Your task to perform on an android device: Show me recent news Image 0: 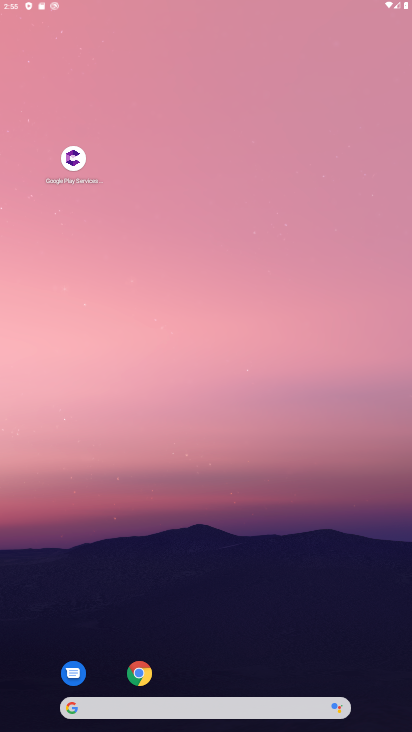
Step 0: press home button
Your task to perform on an android device: Show me recent news Image 1: 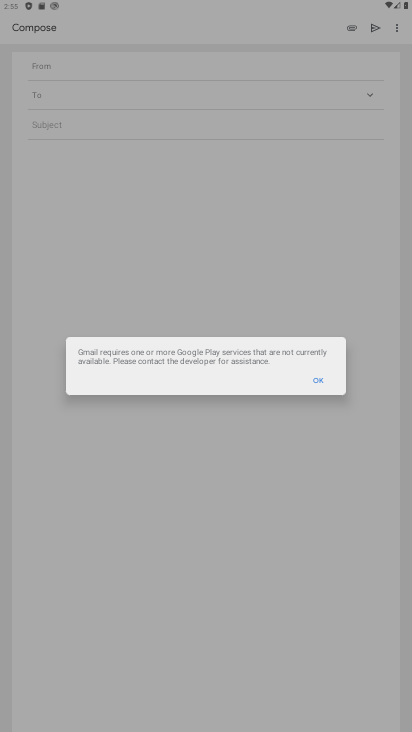
Step 1: click (102, 88)
Your task to perform on an android device: Show me recent news Image 2: 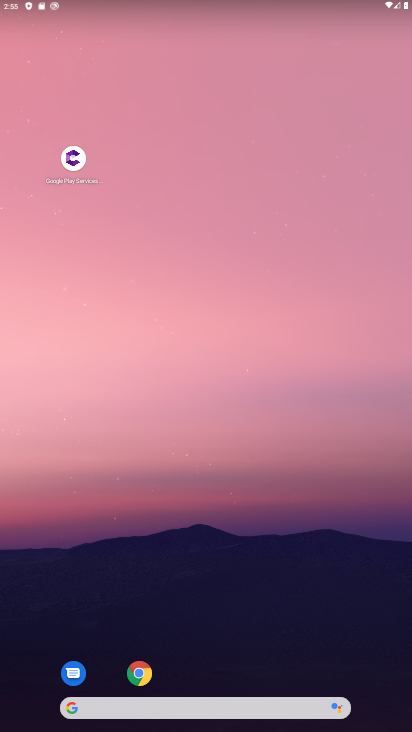
Step 2: click (142, 672)
Your task to perform on an android device: Show me recent news Image 3: 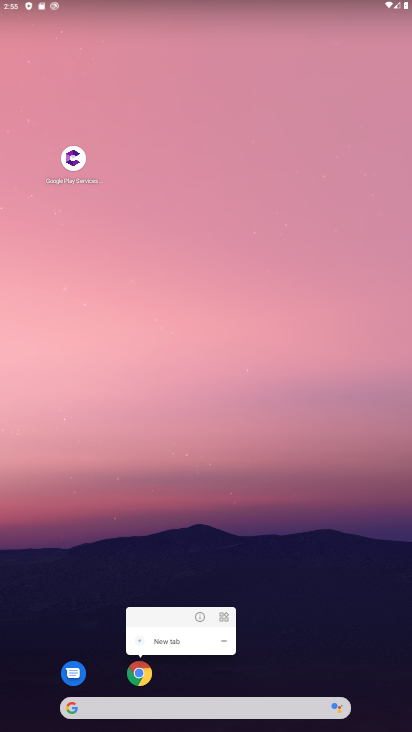
Step 3: click (144, 667)
Your task to perform on an android device: Show me recent news Image 4: 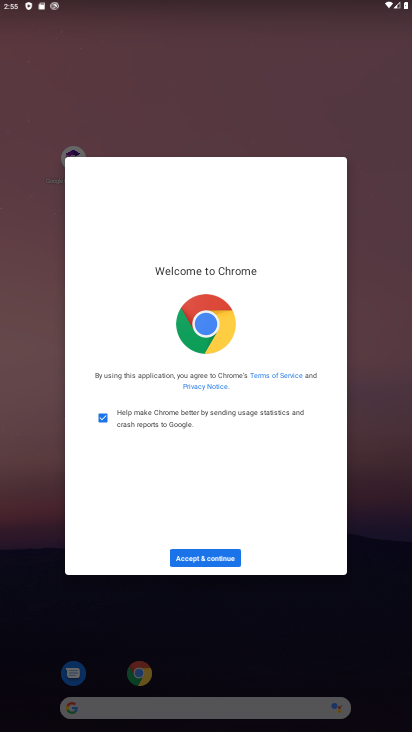
Step 4: click (205, 550)
Your task to perform on an android device: Show me recent news Image 5: 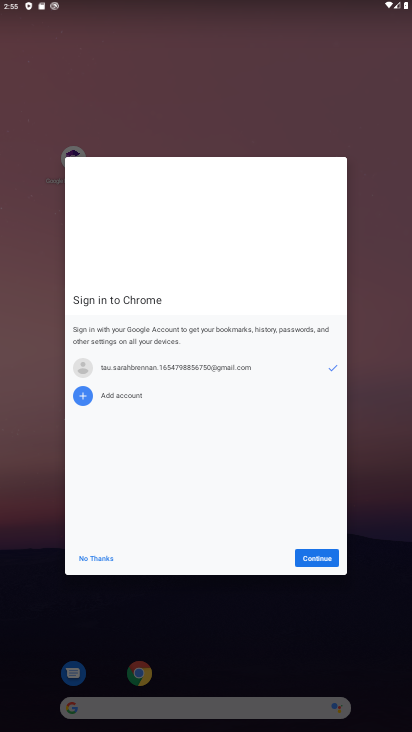
Step 5: click (305, 549)
Your task to perform on an android device: Show me recent news Image 6: 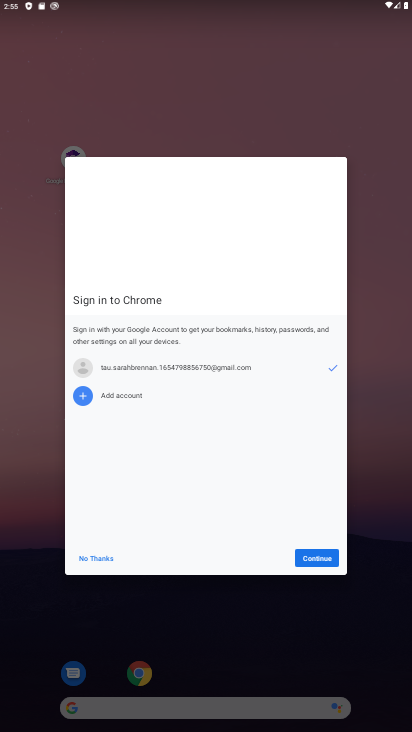
Step 6: click (303, 561)
Your task to perform on an android device: Show me recent news Image 7: 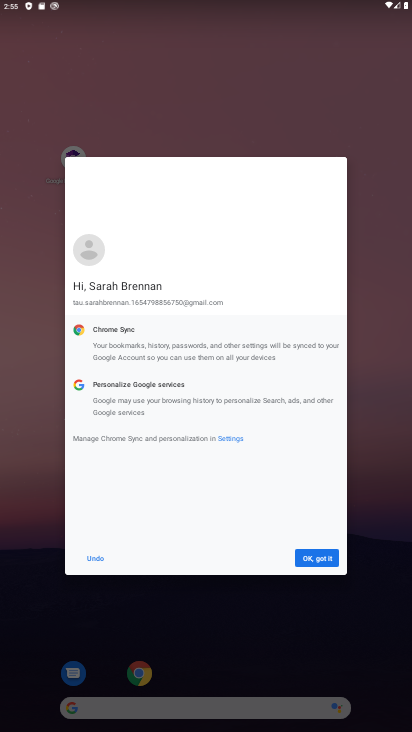
Step 7: click (311, 555)
Your task to perform on an android device: Show me recent news Image 8: 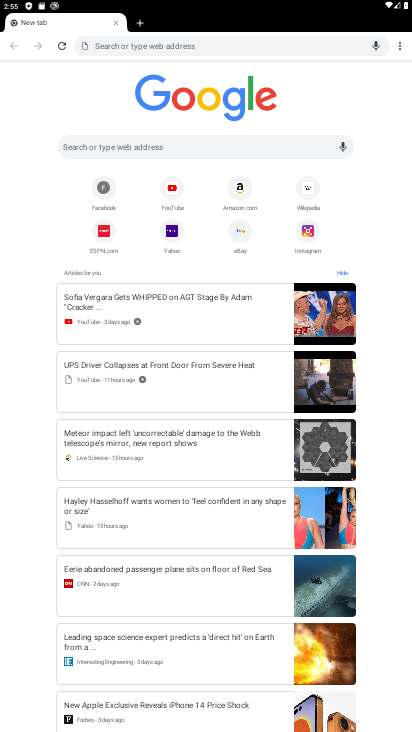
Step 8: click (141, 136)
Your task to perform on an android device: Show me recent news Image 9: 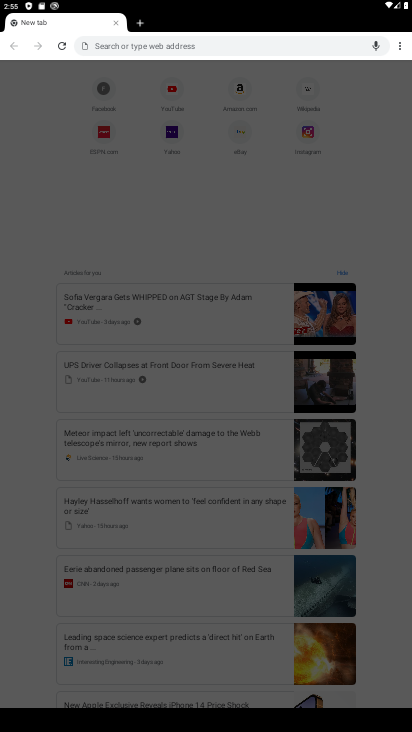
Step 9: type "Show me recent news "
Your task to perform on an android device: Show me recent news Image 10: 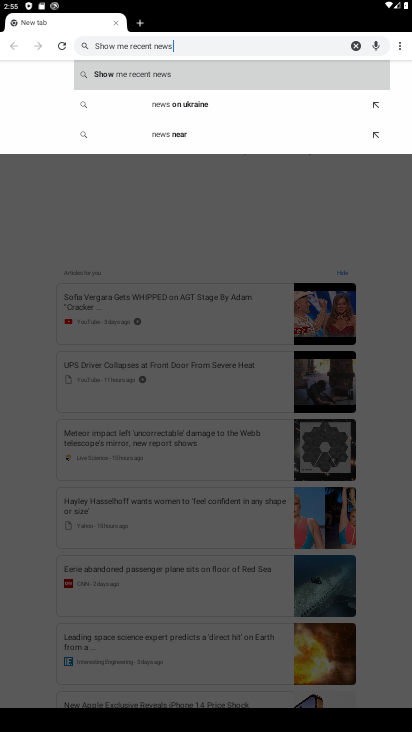
Step 10: click (234, 72)
Your task to perform on an android device: Show me recent news Image 11: 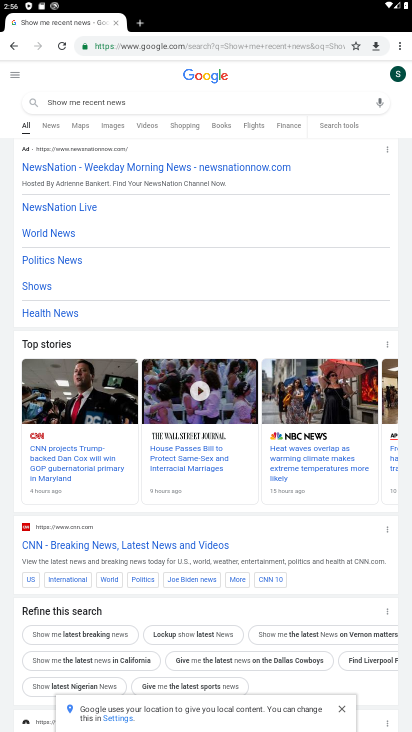
Step 11: task complete